Your task to perform on an android device: toggle improve location accuracy Image 0: 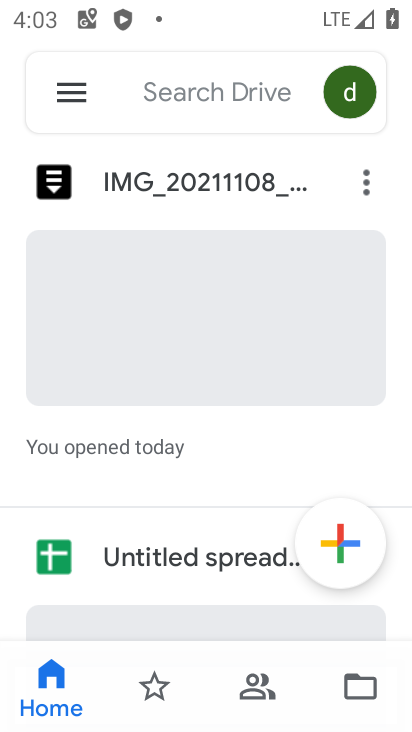
Step 0: press home button
Your task to perform on an android device: toggle improve location accuracy Image 1: 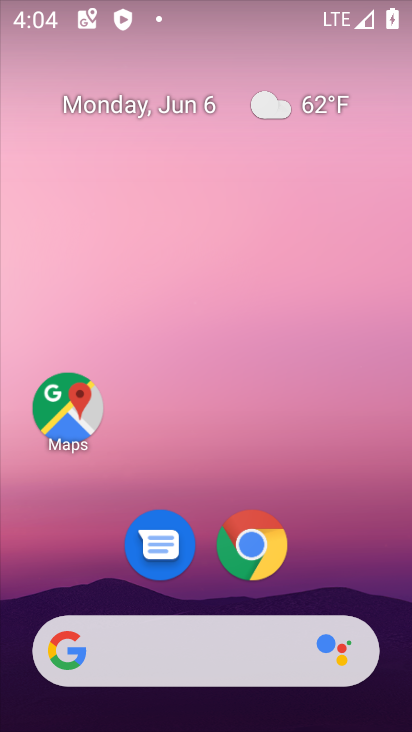
Step 1: drag from (210, 722) to (227, 173)
Your task to perform on an android device: toggle improve location accuracy Image 2: 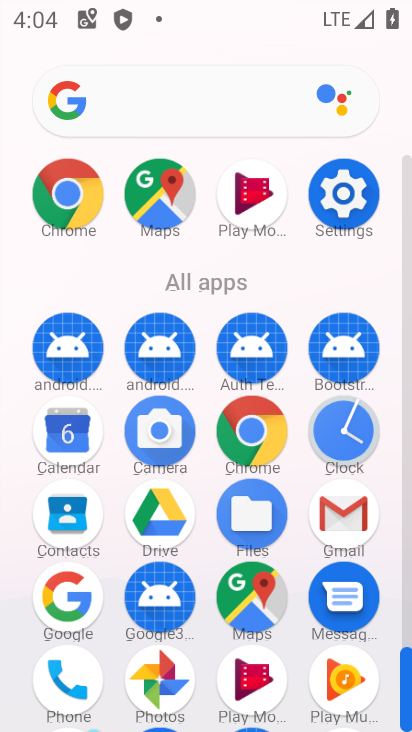
Step 2: click (343, 192)
Your task to perform on an android device: toggle improve location accuracy Image 3: 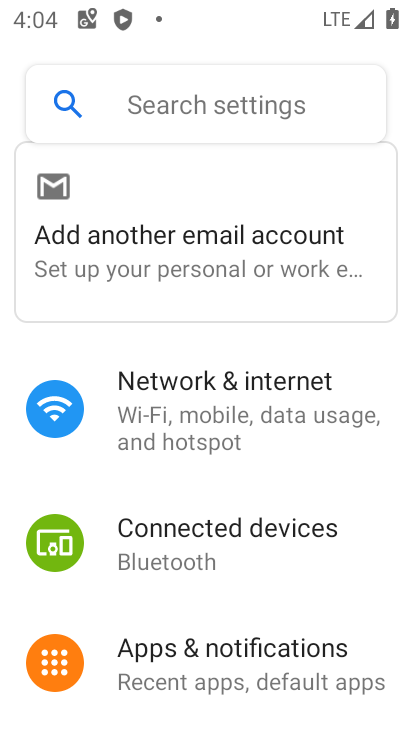
Step 3: drag from (196, 658) to (198, 268)
Your task to perform on an android device: toggle improve location accuracy Image 4: 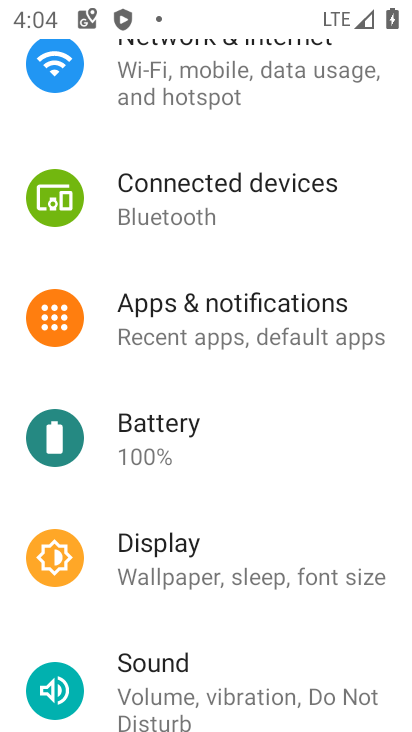
Step 4: drag from (185, 659) to (184, 248)
Your task to perform on an android device: toggle improve location accuracy Image 5: 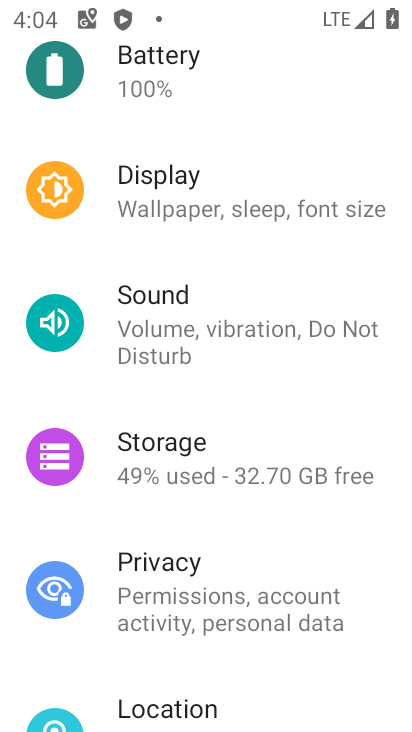
Step 5: click (157, 708)
Your task to perform on an android device: toggle improve location accuracy Image 6: 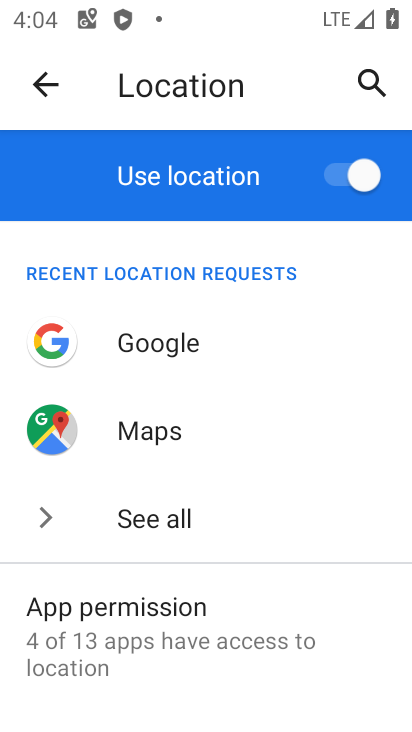
Step 6: drag from (154, 702) to (162, 274)
Your task to perform on an android device: toggle improve location accuracy Image 7: 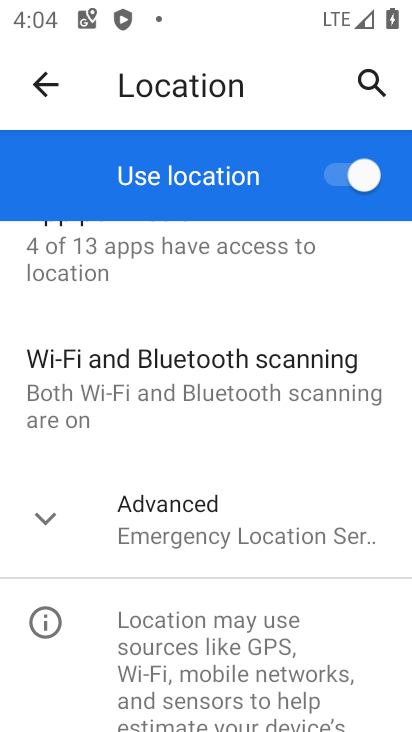
Step 7: click (177, 516)
Your task to perform on an android device: toggle improve location accuracy Image 8: 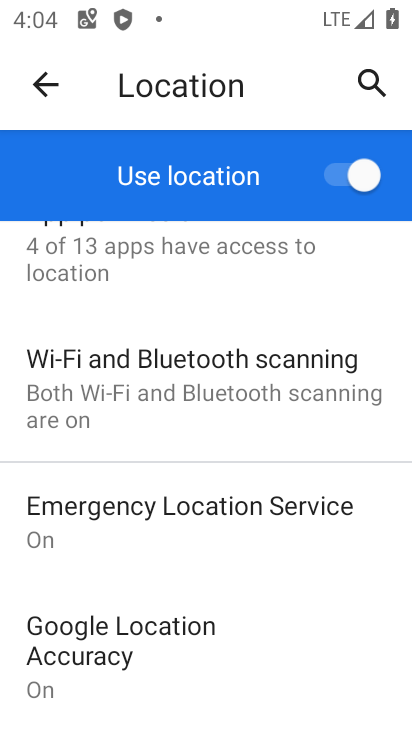
Step 8: click (112, 632)
Your task to perform on an android device: toggle improve location accuracy Image 9: 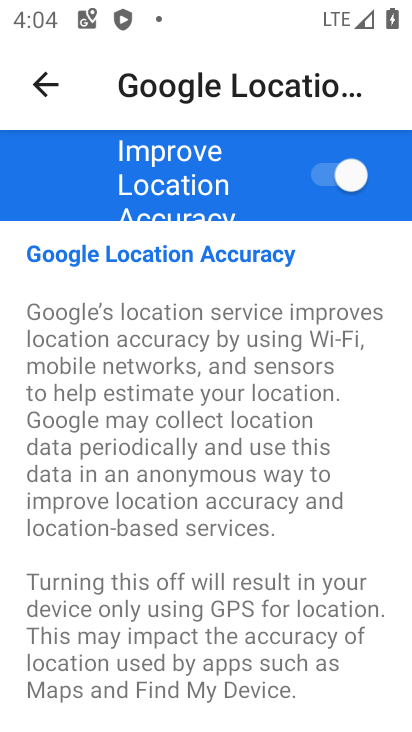
Step 9: click (326, 180)
Your task to perform on an android device: toggle improve location accuracy Image 10: 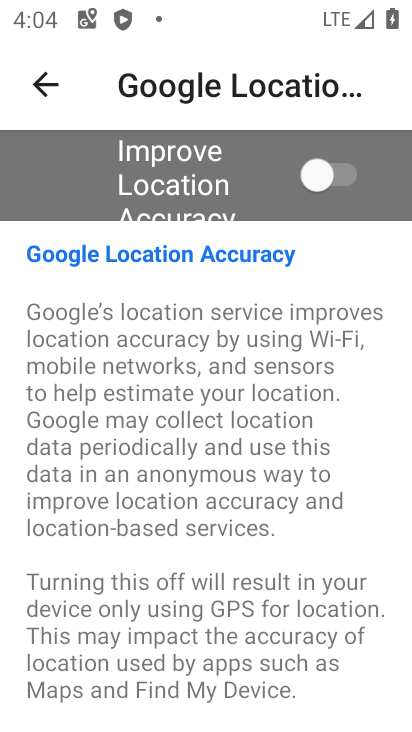
Step 10: task complete